Your task to perform on an android device: see tabs open on other devices in the chrome app Image 0: 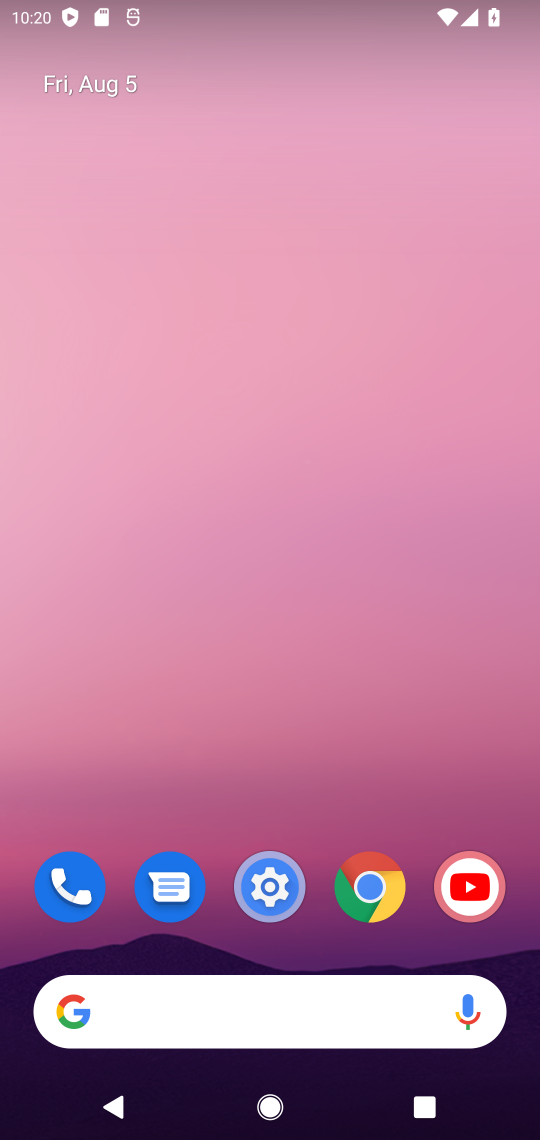
Step 0: click (362, 893)
Your task to perform on an android device: see tabs open on other devices in the chrome app Image 1: 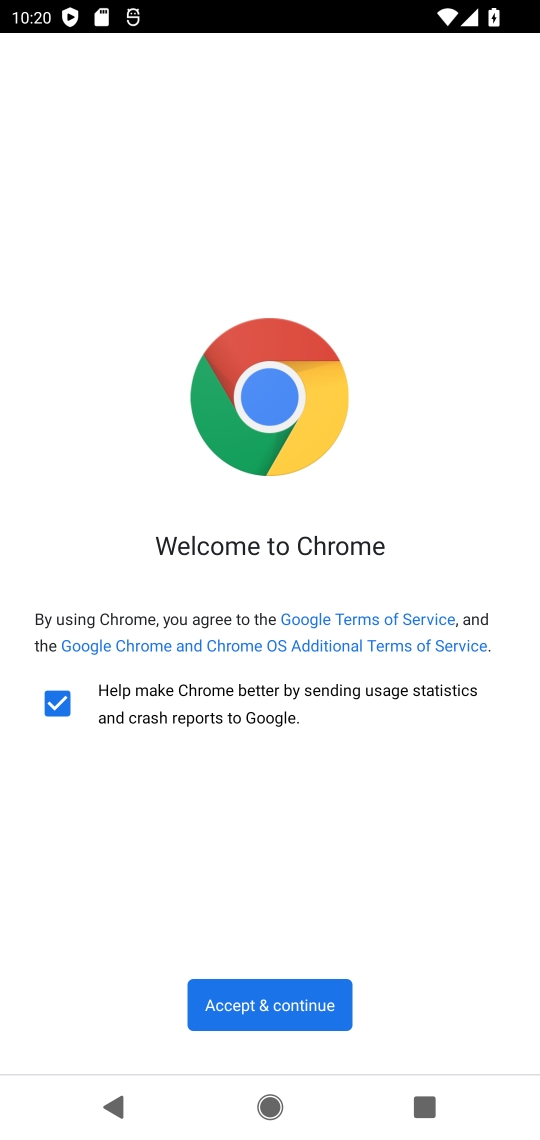
Step 1: click (255, 1012)
Your task to perform on an android device: see tabs open on other devices in the chrome app Image 2: 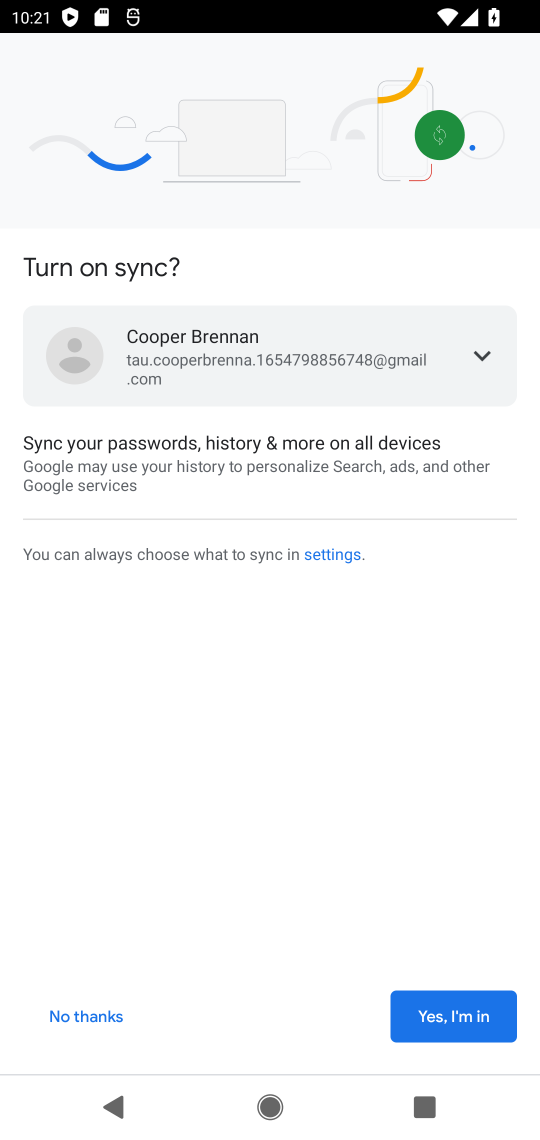
Step 2: click (408, 1026)
Your task to perform on an android device: see tabs open on other devices in the chrome app Image 3: 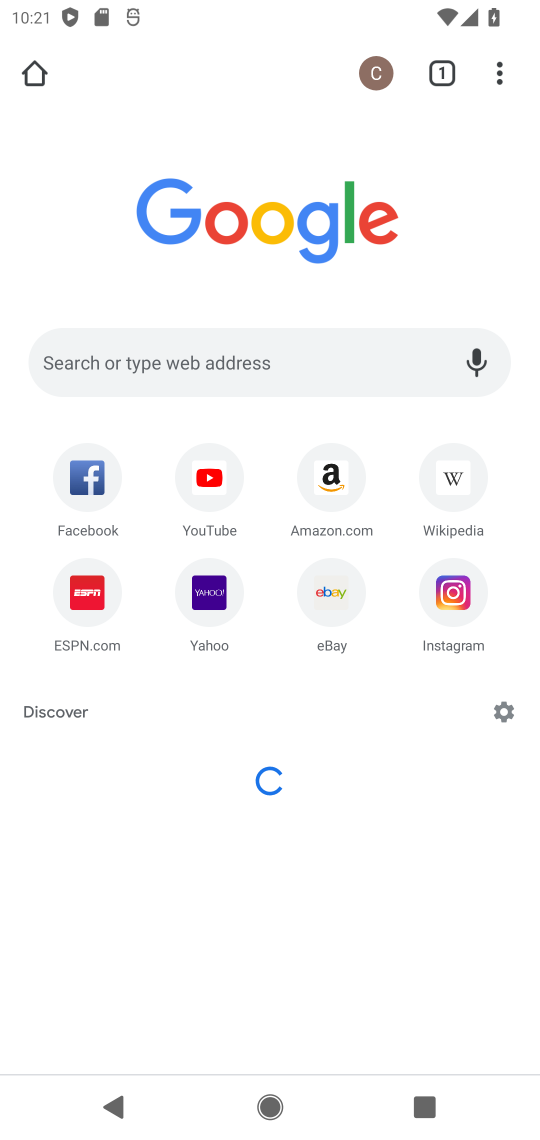
Step 3: task complete